Your task to perform on an android device: turn smart compose on in the gmail app Image 0: 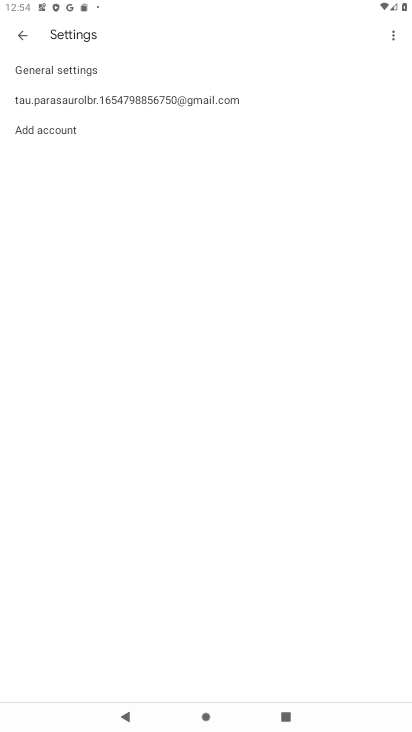
Step 0: press home button
Your task to perform on an android device: turn smart compose on in the gmail app Image 1: 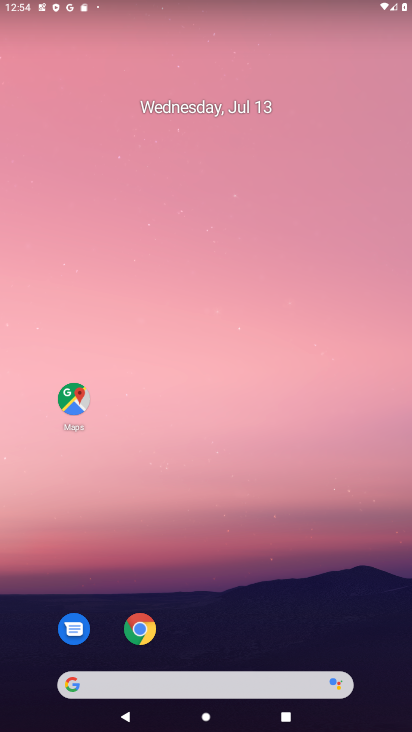
Step 1: drag from (225, 576) to (237, 193)
Your task to perform on an android device: turn smart compose on in the gmail app Image 2: 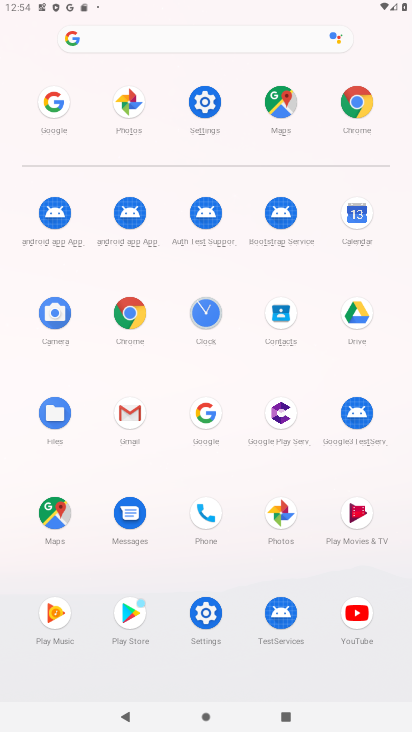
Step 2: click (135, 407)
Your task to perform on an android device: turn smart compose on in the gmail app Image 3: 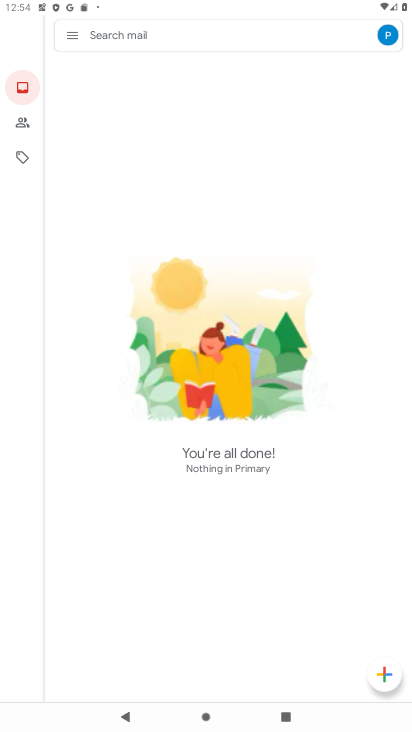
Step 3: click (63, 36)
Your task to perform on an android device: turn smart compose on in the gmail app Image 4: 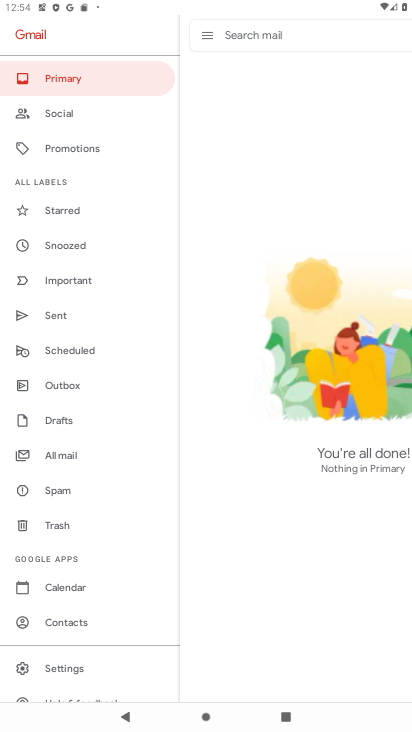
Step 4: click (62, 657)
Your task to perform on an android device: turn smart compose on in the gmail app Image 5: 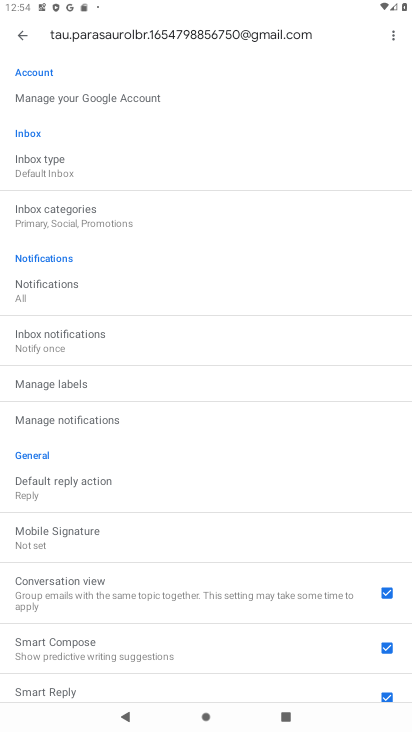
Step 5: task complete